Your task to perform on an android device: open app "Spotify: Music and Podcasts" (install if not already installed) Image 0: 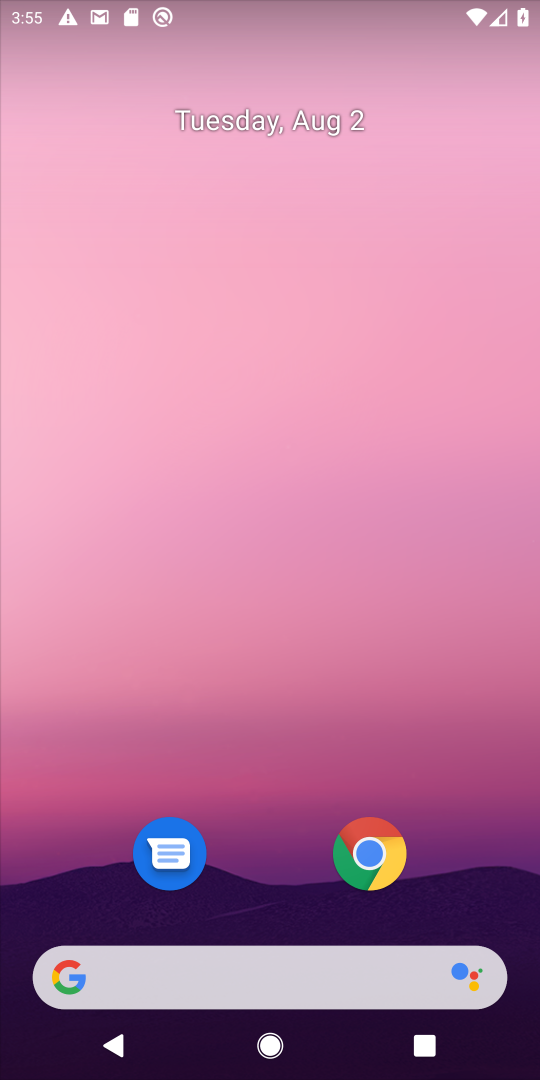
Step 0: drag from (320, 997) to (314, 57)
Your task to perform on an android device: open app "Spotify: Music and Podcasts" (install if not already installed) Image 1: 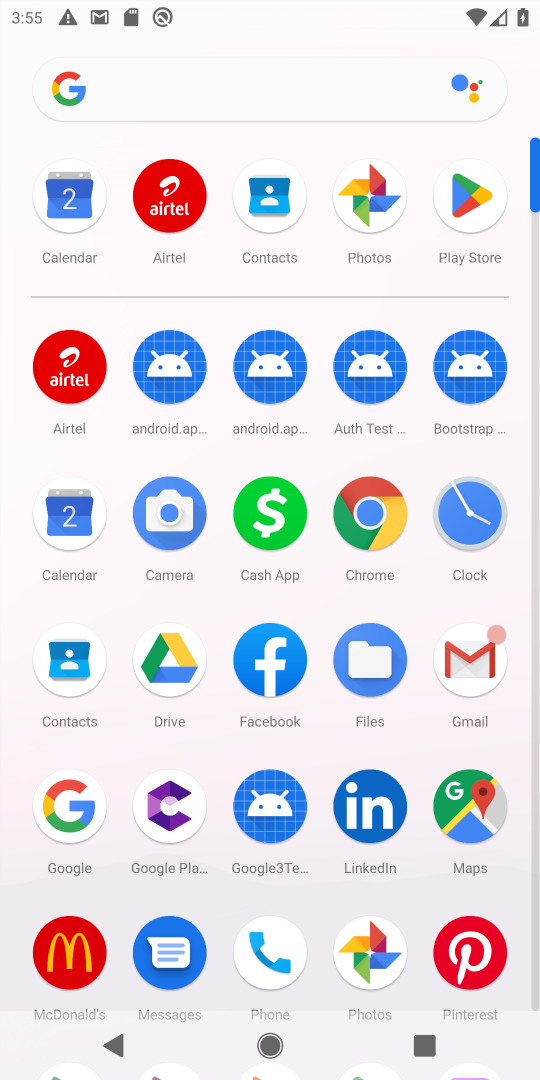
Step 1: click (467, 215)
Your task to perform on an android device: open app "Spotify: Music and Podcasts" (install if not already installed) Image 2: 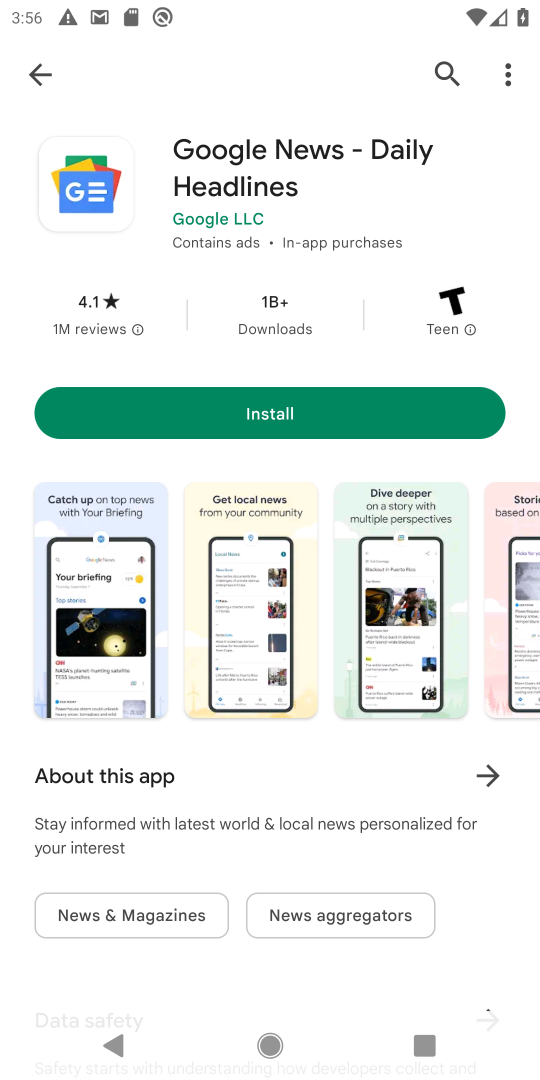
Step 2: click (441, 71)
Your task to perform on an android device: open app "Spotify: Music and Podcasts" (install if not already installed) Image 3: 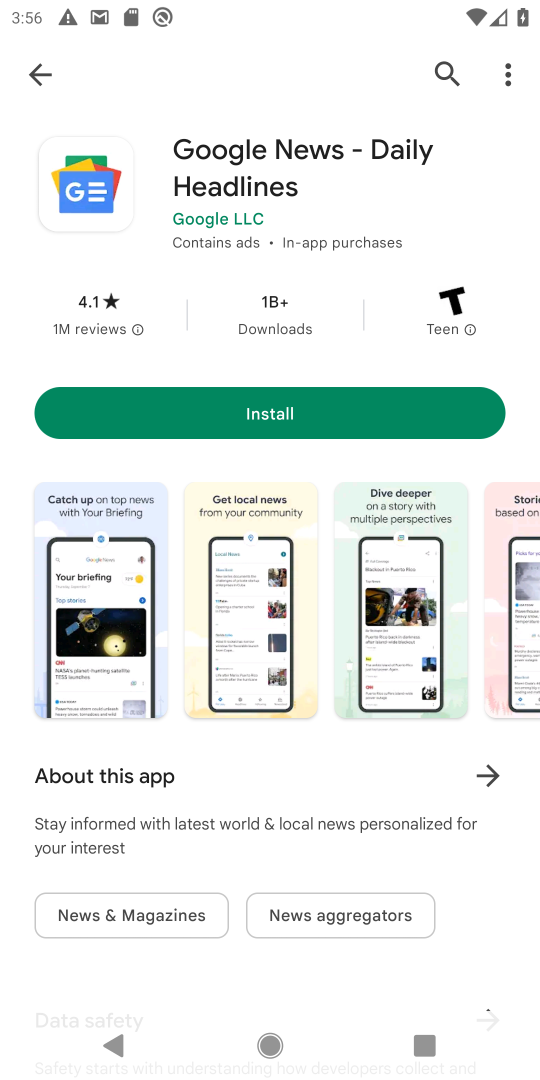
Step 3: click (425, 71)
Your task to perform on an android device: open app "Spotify: Music and Podcasts" (install if not already installed) Image 4: 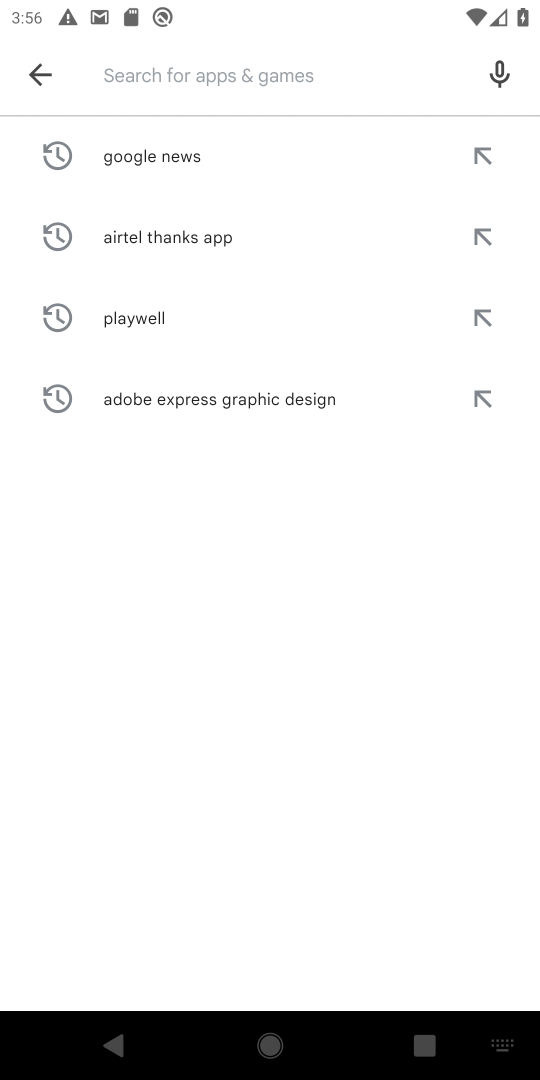
Step 4: type "Spotify: Music and Podcasts"
Your task to perform on an android device: open app "Spotify: Music and Podcasts" (install if not already installed) Image 5: 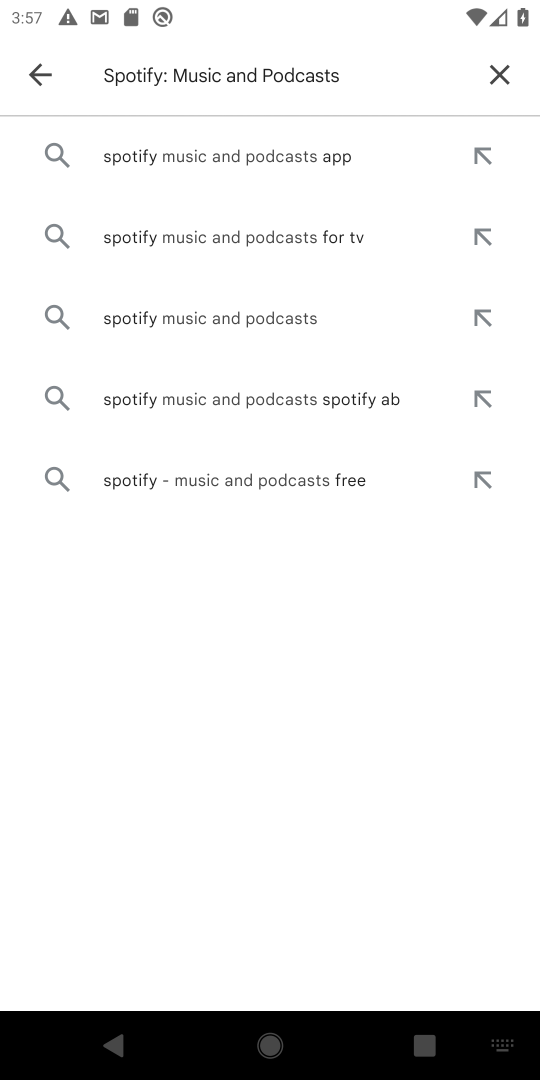
Step 5: click (268, 157)
Your task to perform on an android device: open app "Spotify: Music and Podcasts" (install if not already installed) Image 6: 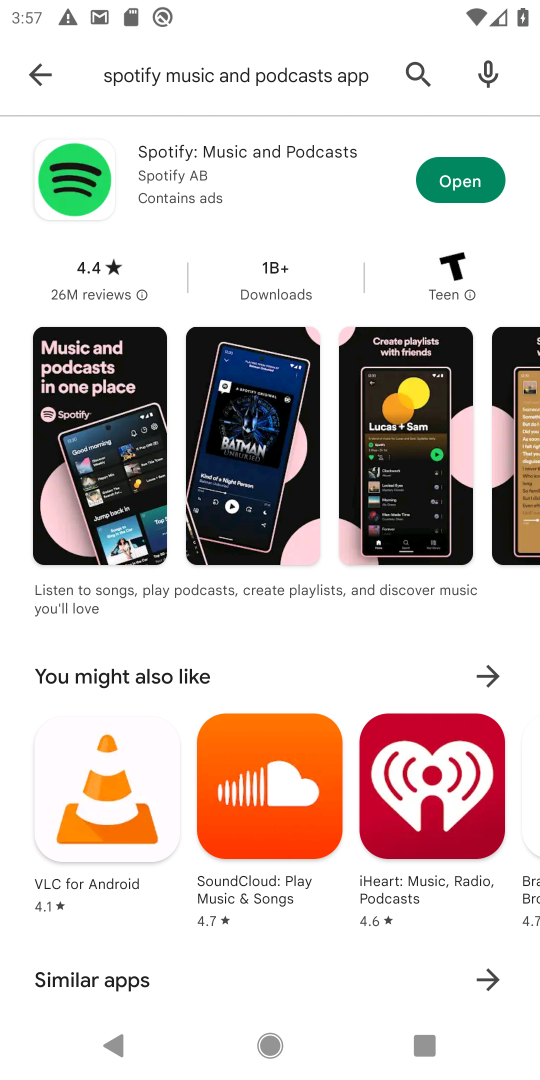
Step 6: click (456, 179)
Your task to perform on an android device: open app "Spotify: Music and Podcasts" (install if not already installed) Image 7: 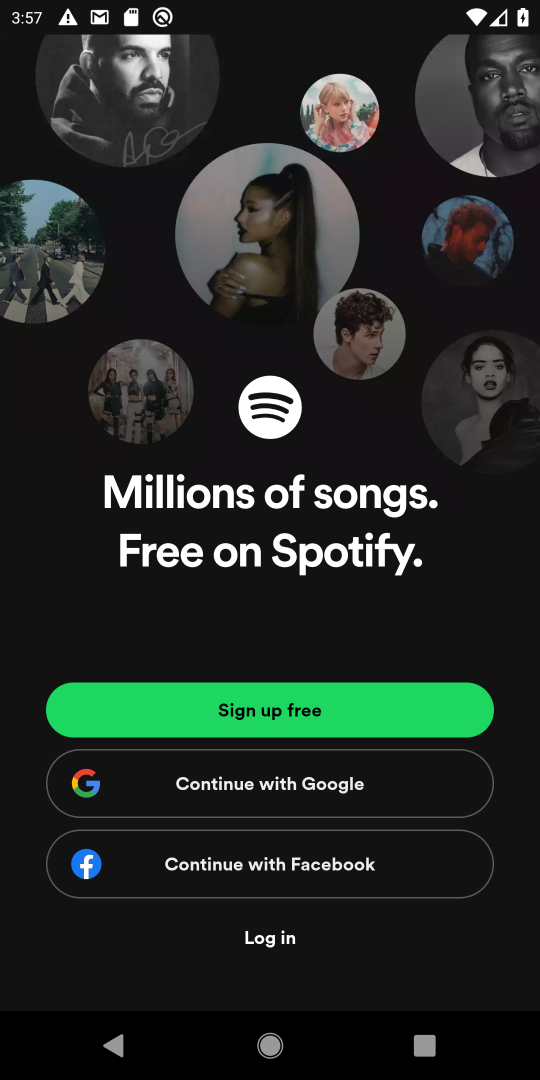
Step 7: task complete